Your task to perform on an android device: Set the phone to "Do not disturb". Image 0: 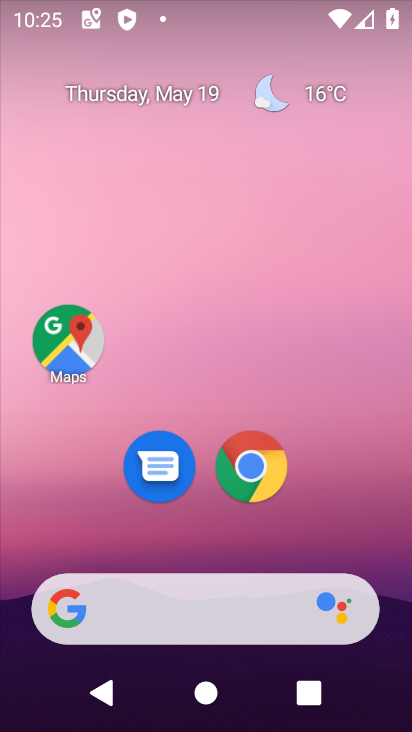
Step 0: drag from (236, 4) to (256, 524)
Your task to perform on an android device: Set the phone to "Do not disturb". Image 1: 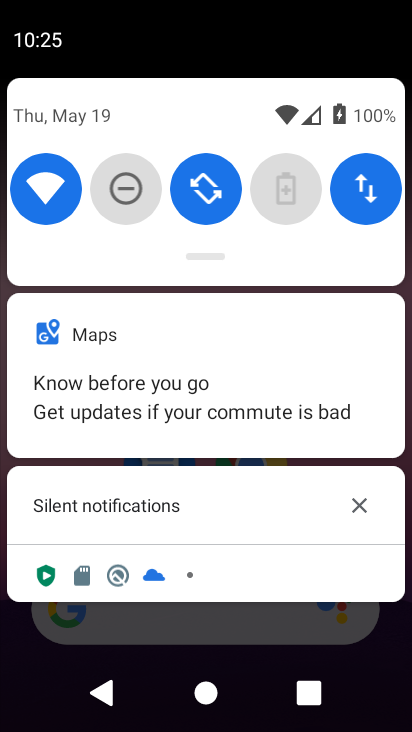
Step 1: click (112, 189)
Your task to perform on an android device: Set the phone to "Do not disturb". Image 2: 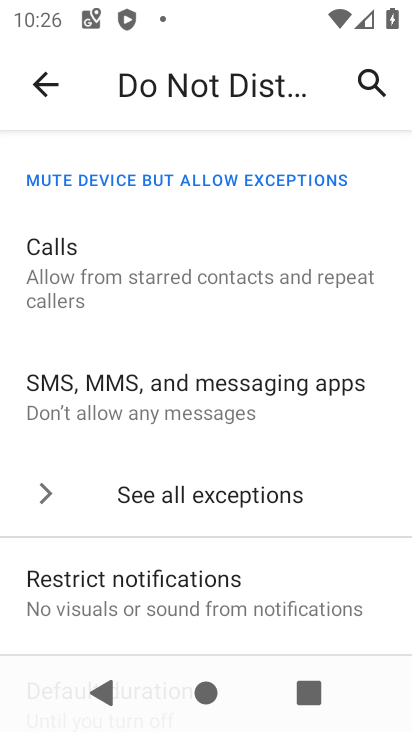
Step 2: task complete